Your task to perform on an android device: Open accessibility settings Image 0: 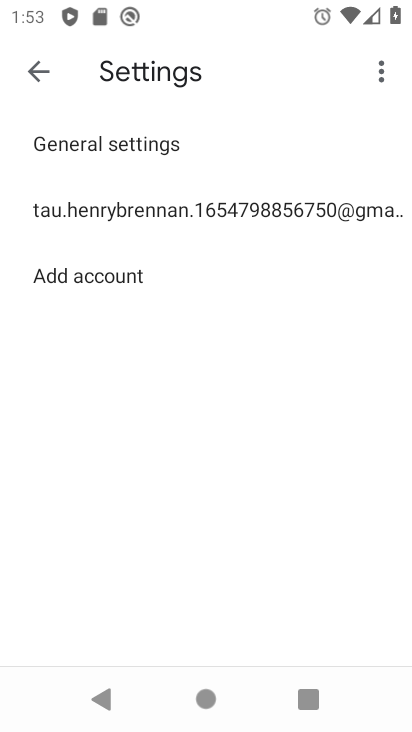
Step 0: press back button
Your task to perform on an android device: Open accessibility settings Image 1: 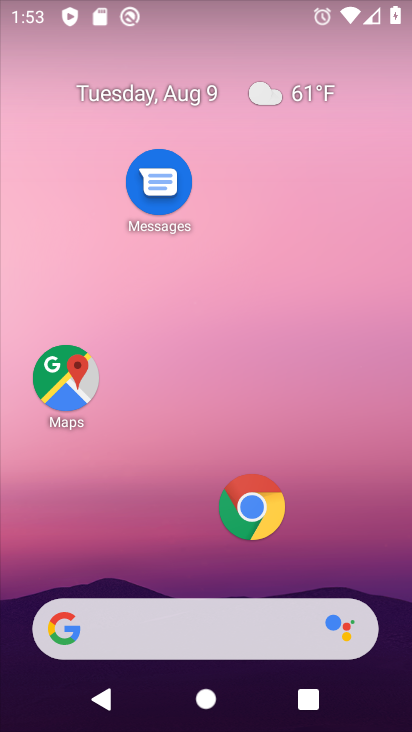
Step 1: drag from (155, 557) to (288, 42)
Your task to perform on an android device: Open accessibility settings Image 2: 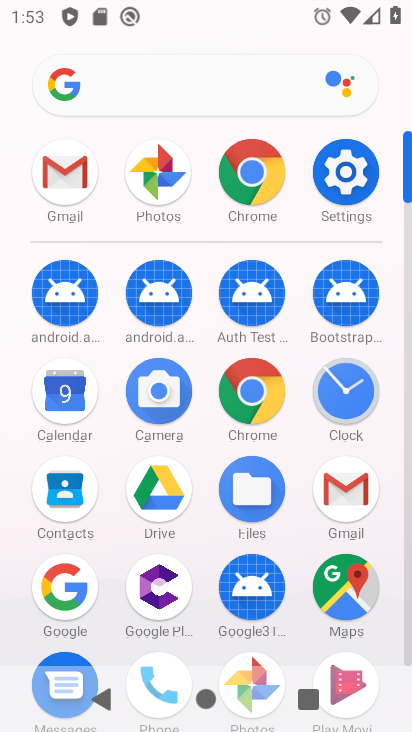
Step 2: click (340, 188)
Your task to perform on an android device: Open accessibility settings Image 3: 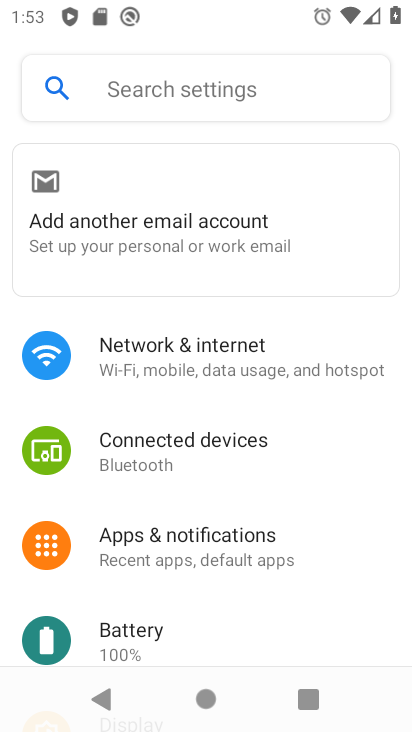
Step 3: drag from (191, 577) to (289, 51)
Your task to perform on an android device: Open accessibility settings Image 4: 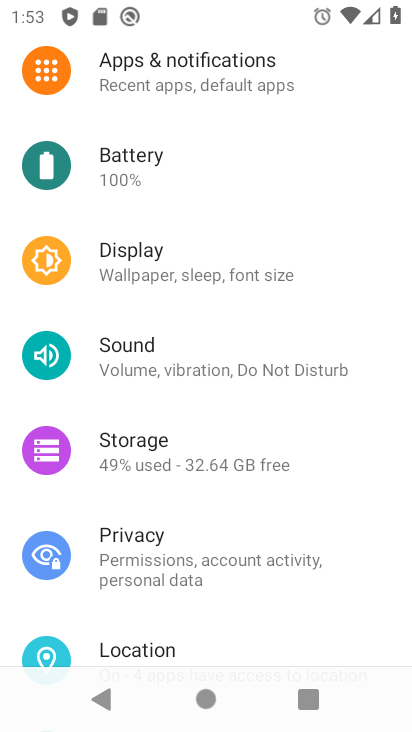
Step 4: drag from (154, 582) to (241, 156)
Your task to perform on an android device: Open accessibility settings Image 5: 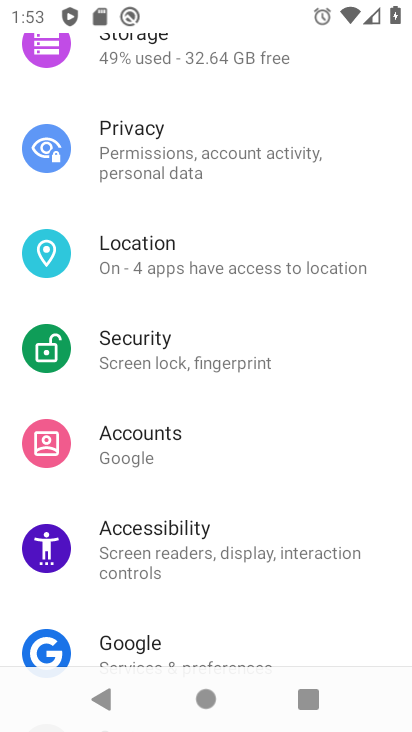
Step 5: click (165, 543)
Your task to perform on an android device: Open accessibility settings Image 6: 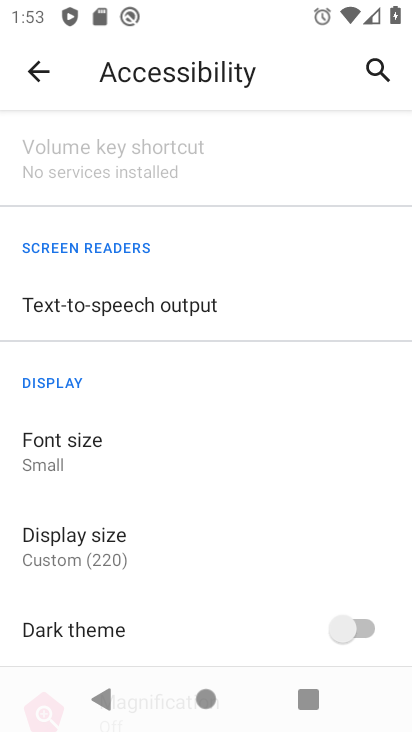
Step 6: task complete